Your task to perform on an android device: Open maps Image 0: 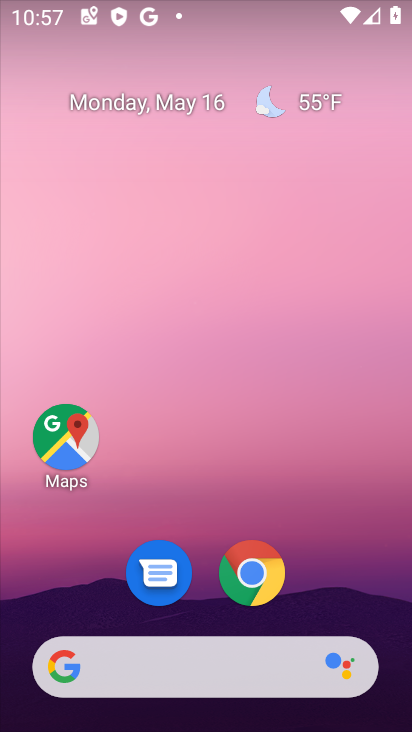
Step 0: click (55, 440)
Your task to perform on an android device: Open maps Image 1: 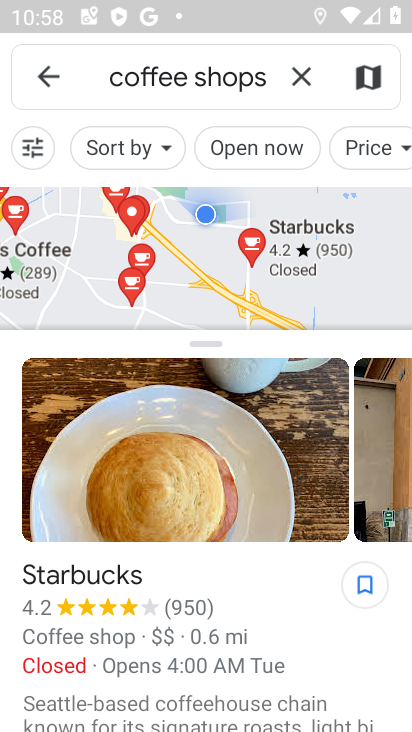
Step 1: click (60, 75)
Your task to perform on an android device: Open maps Image 2: 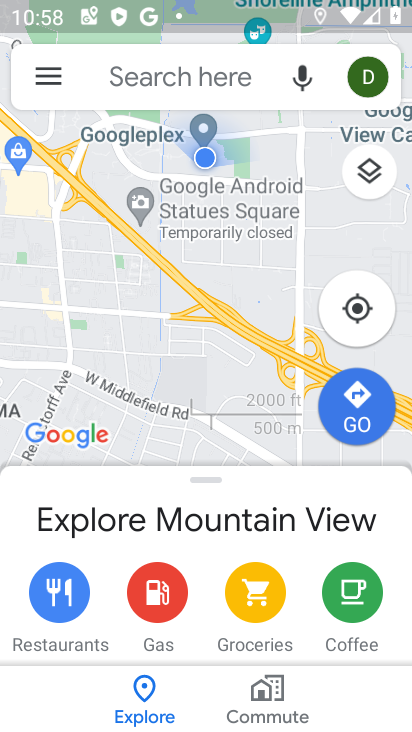
Step 2: task complete